Your task to perform on an android device: toggle pop-ups in chrome Image 0: 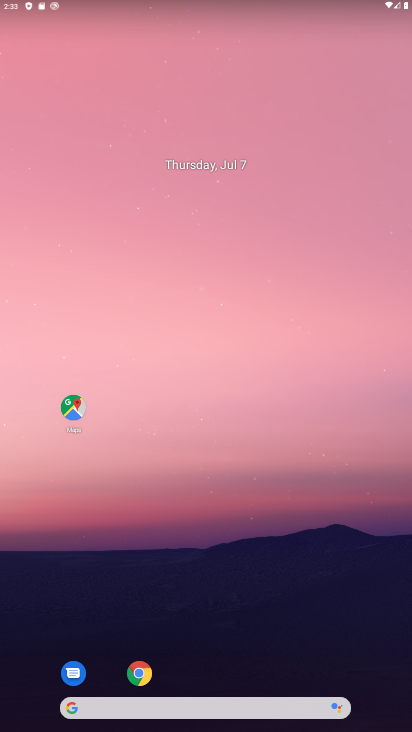
Step 0: drag from (195, 675) to (238, 72)
Your task to perform on an android device: toggle pop-ups in chrome Image 1: 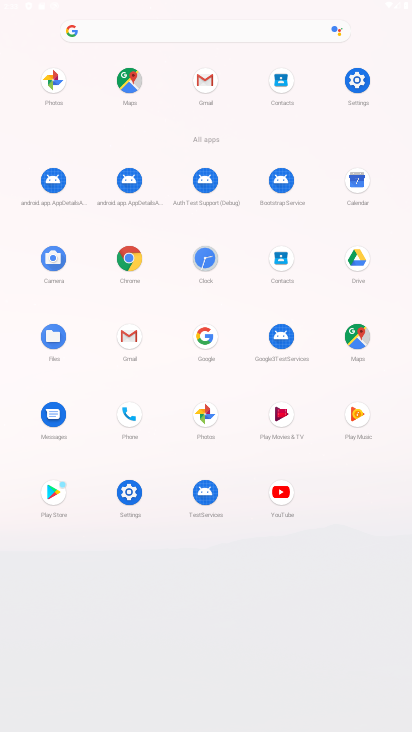
Step 1: click (131, 268)
Your task to perform on an android device: toggle pop-ups in chrome Image 2: 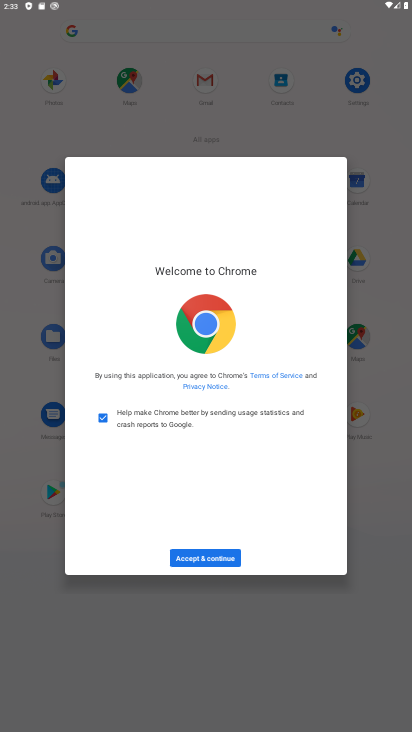
Step 2: click (202, 552)
Your task to perform on an android device: toggle pop-ups in chrome Image 3: 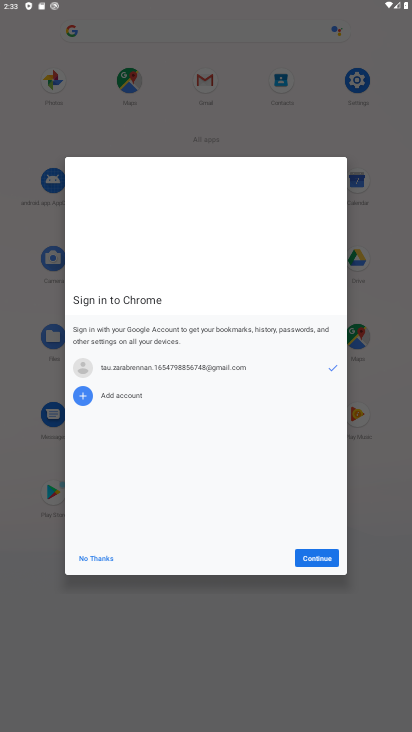
Step 3: click (331, 560)
Your task to perform on an android device: toggle pop-ups in chrome Image 4: 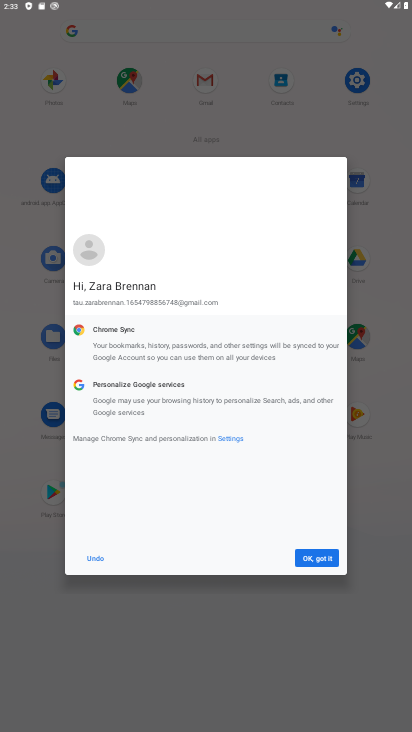
Step 4: click (331, 560)
Your task to perform on an android device: toggle pop-ups in chrome Image 5: 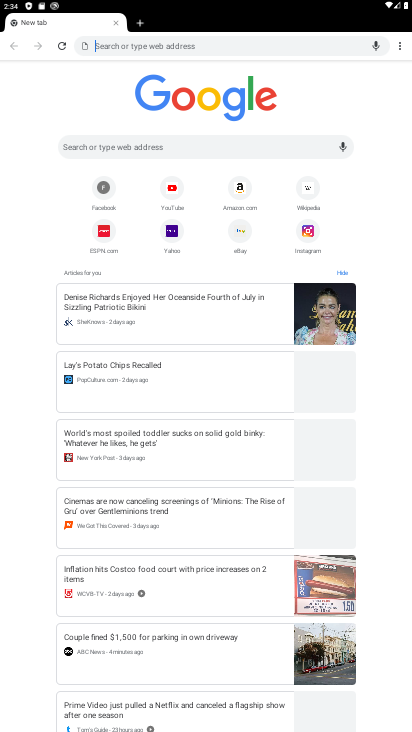
Step 5: click (401, 41)
Your task to perform on an android device: toggle pop-ups in chrome Image 6: 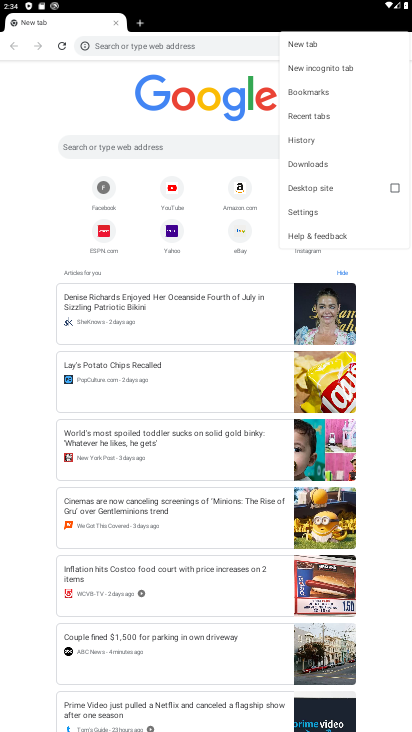
Step 6: click (306, 213)
Your task to perform on an android device: toggle pop-ups in chrome Image 7: 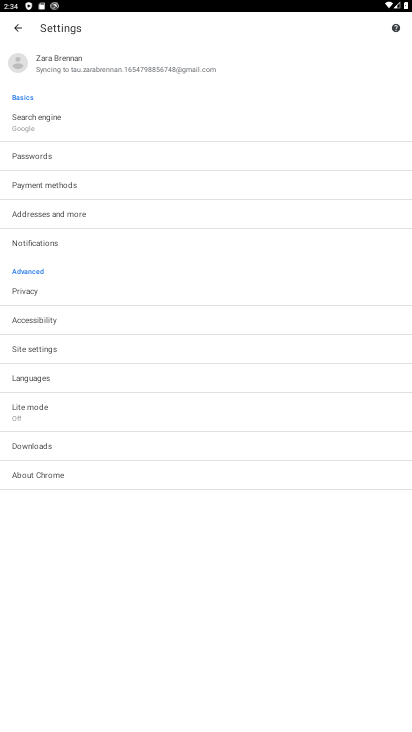
Step 7: click (64, 354)
Your task to perform on an android device: toggle pop-ups in chrome Image 8: 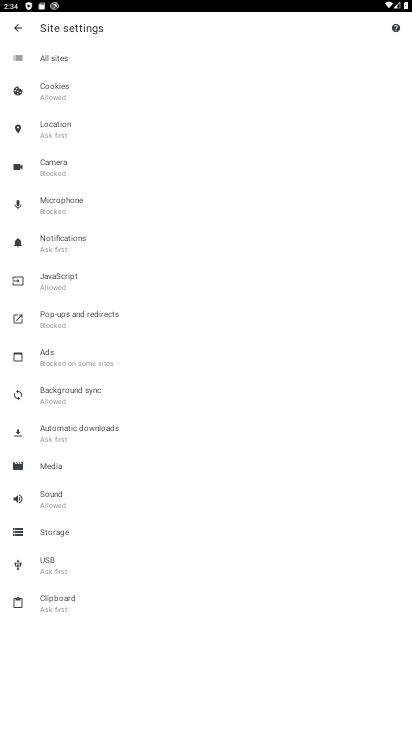
Step 8: click (102, 324)
Your task to perform on an android device: toggle pop-ups in chrome Image 9: 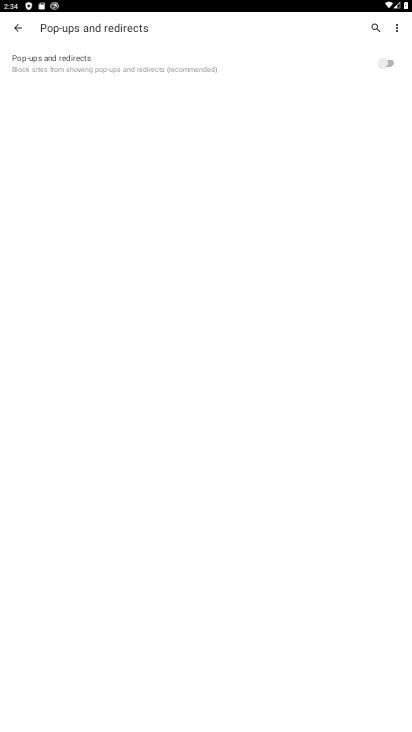
Step 9: click (388, 84)
Your task to perform on an android device: toggle pop-ups in chrome Image 10: 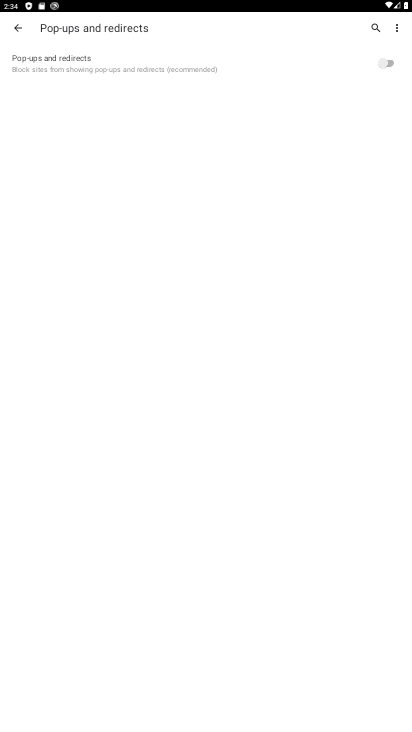
Step 10: click (397, 58)
Your task to perform on an android device: toggle pop-ups in chrome Image 11: 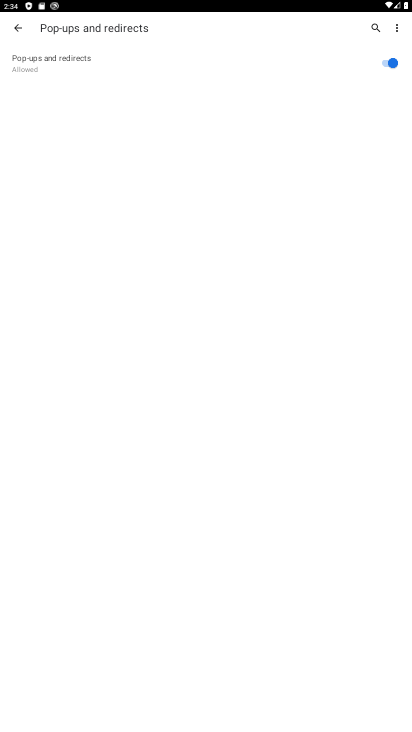
Step 11: task complete